Your task to perform on an android device: turn off improve location accuracy Image 0: 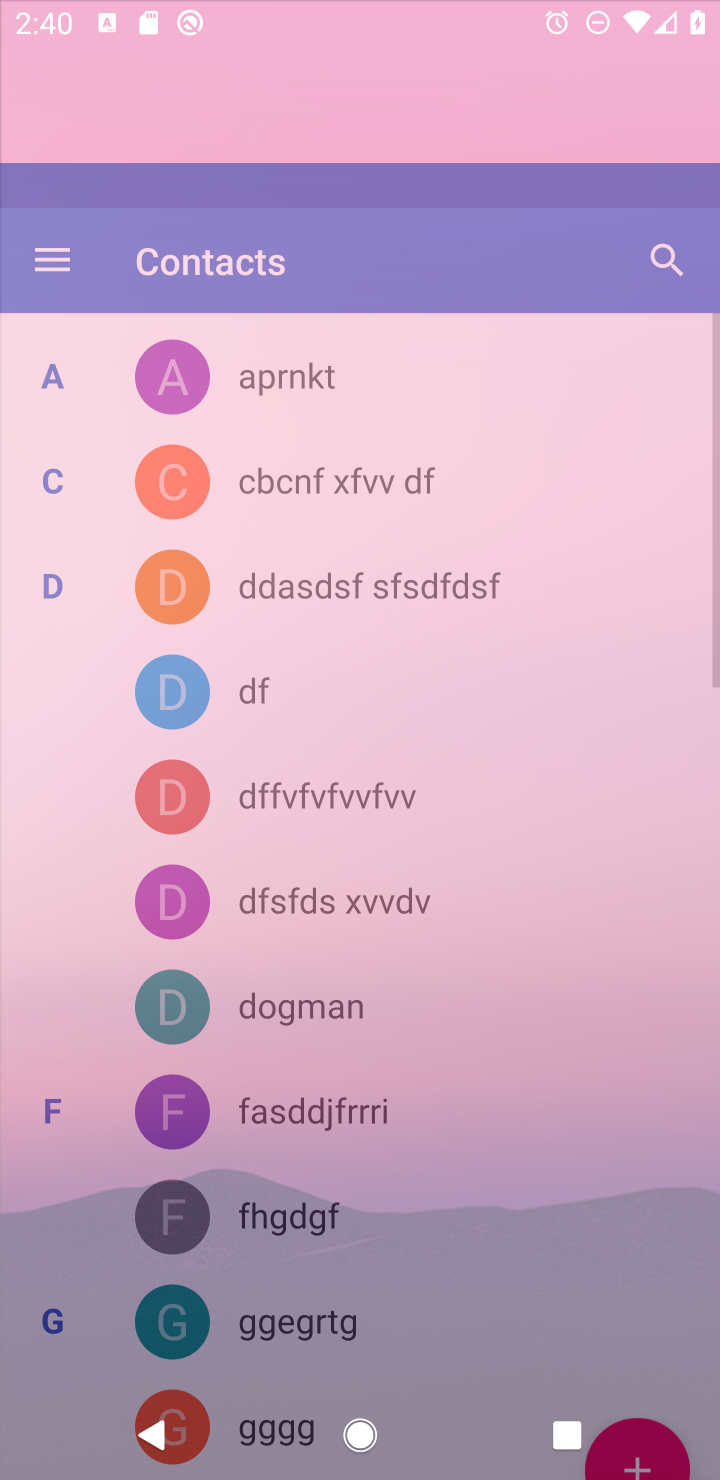
Step 0: press home button
Your task to perform on an android device: turn off improve location accuracy Image 1: 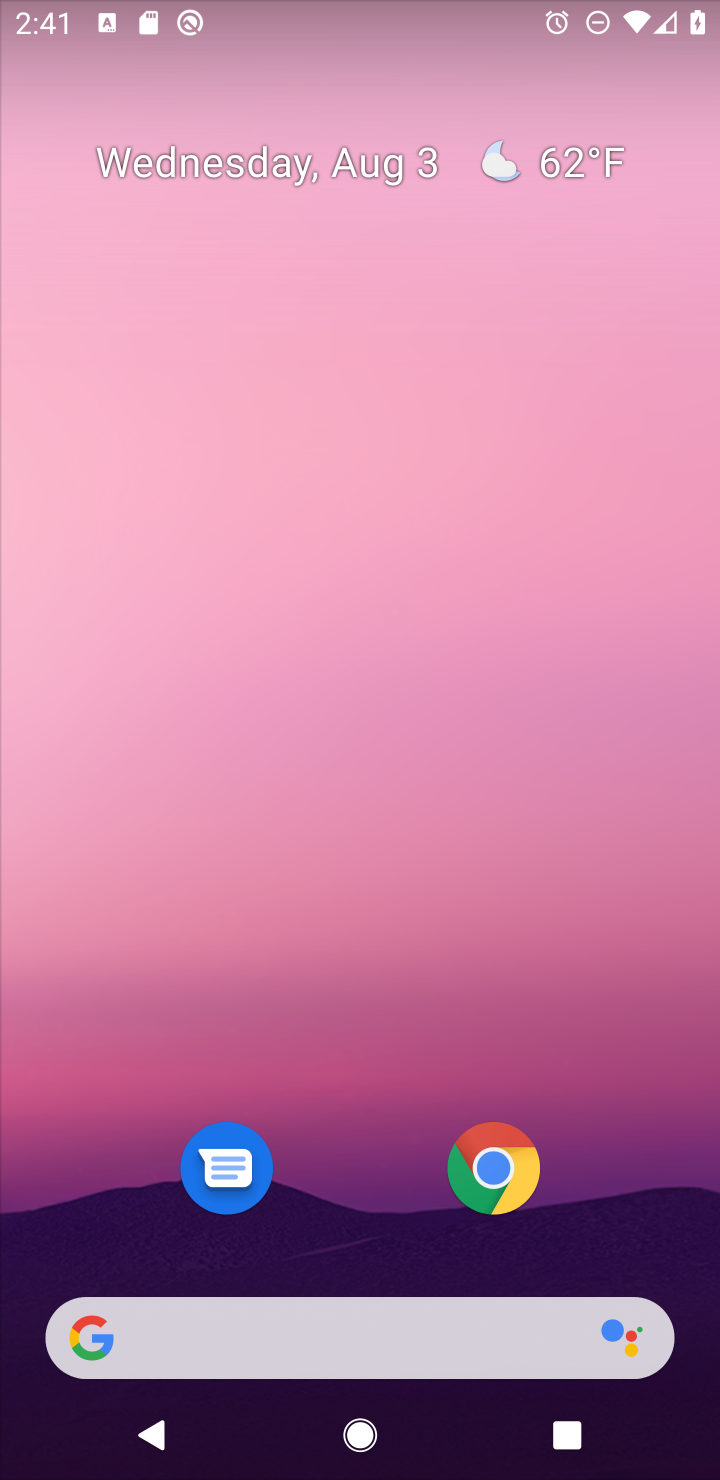
Step 1: drag from (644, 904) to (617, 168)
Your task to perform on an android device: turn off improve location accuracy Image 2: 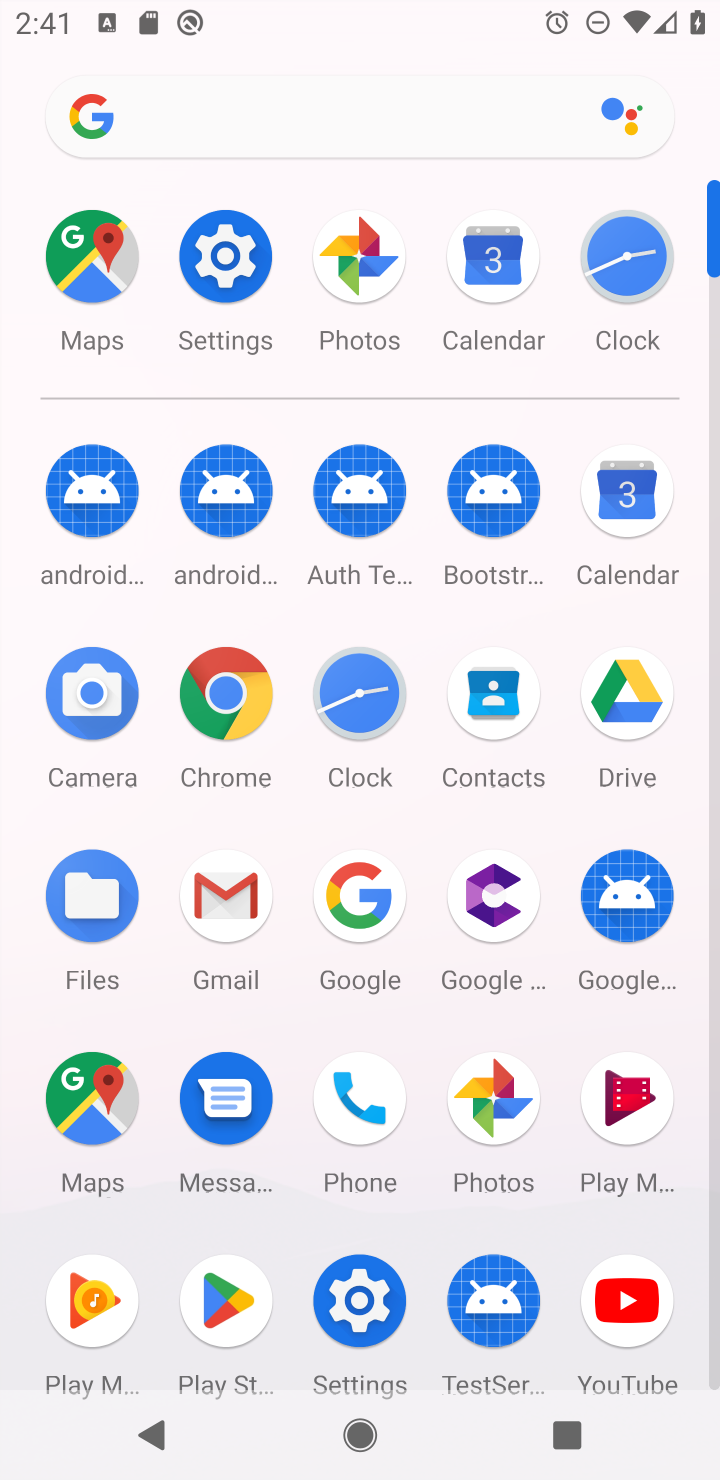
Step 2: click (357, 1298)
Your task to perform on an android device: turn off improve location accuracy Image 3: 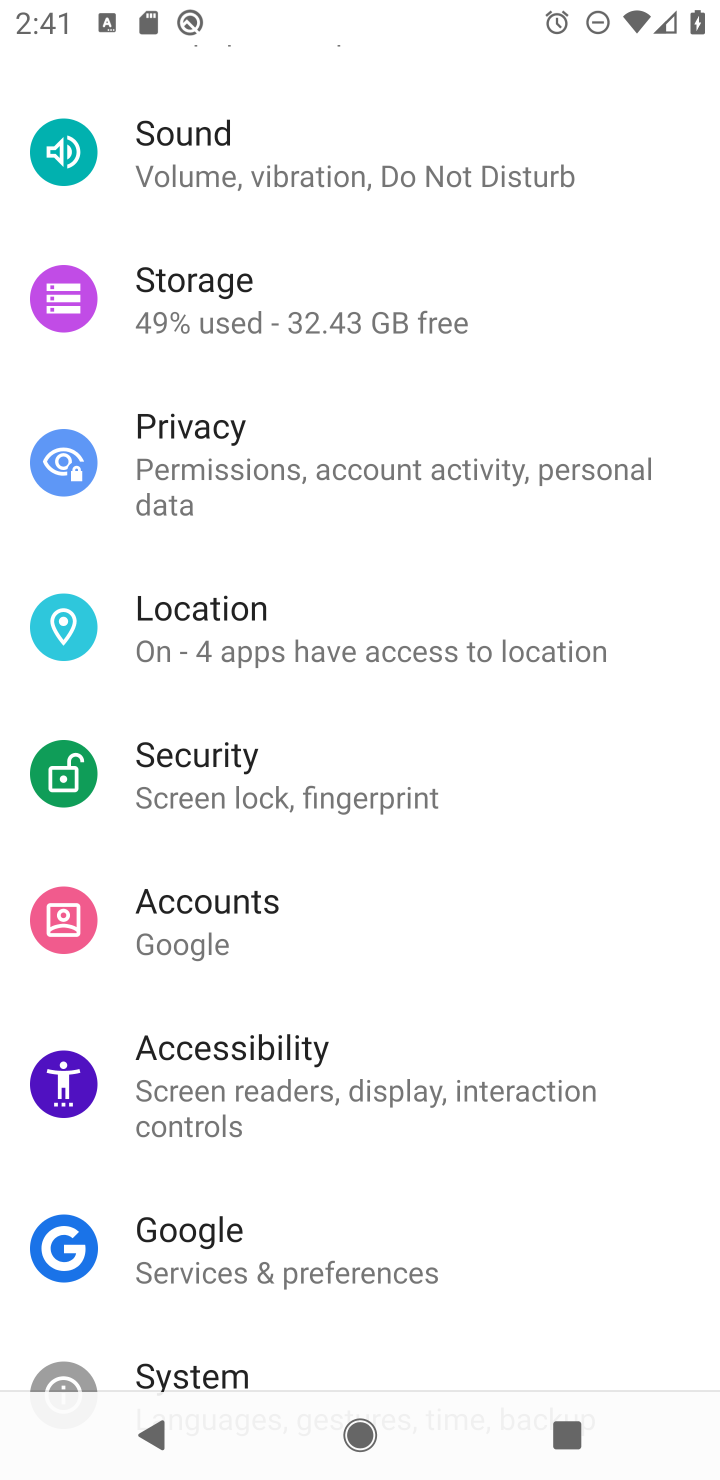
Step 3: click (164, 623)
Your task to perform on an android device: turn off improve location accuracy Image 4: 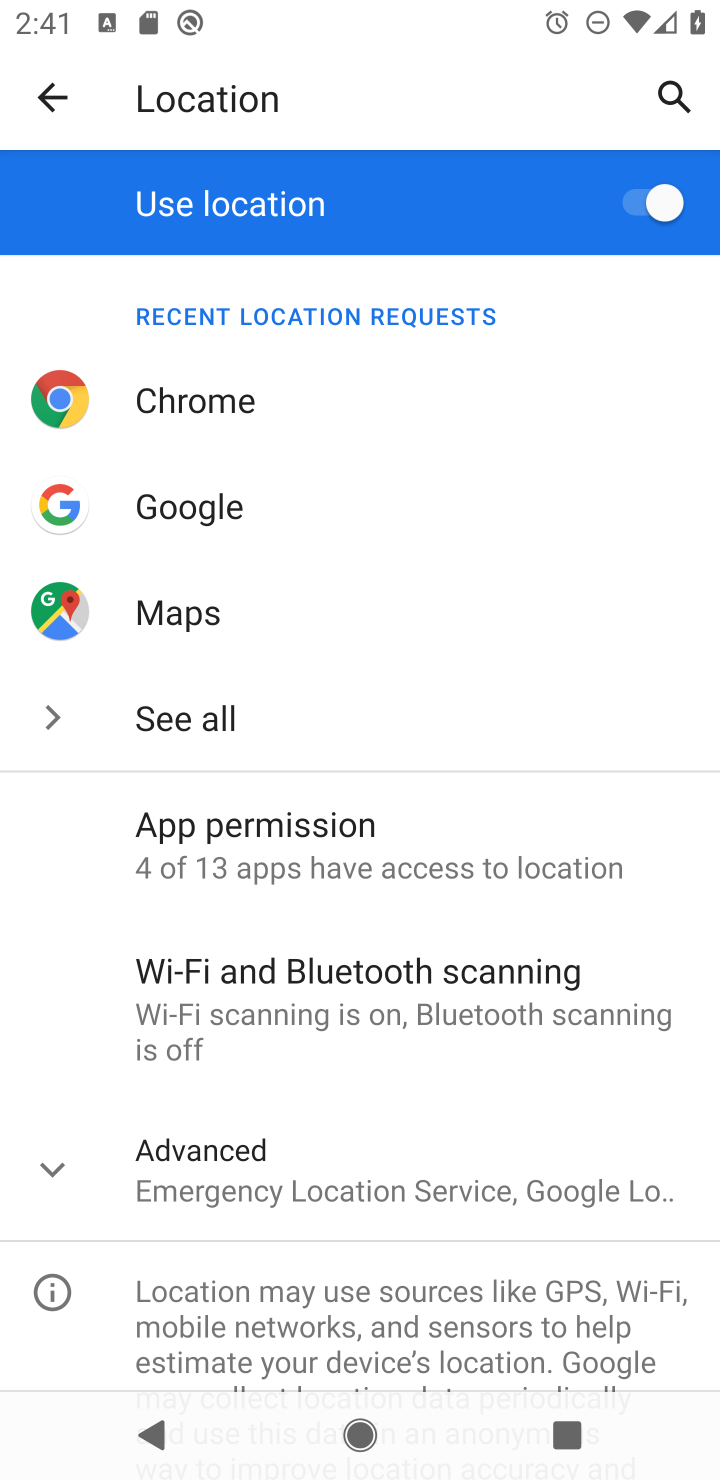
Step 4: click (57, 1171)
Your task to perform on an android device: turn off improve location accuracy Image 5: 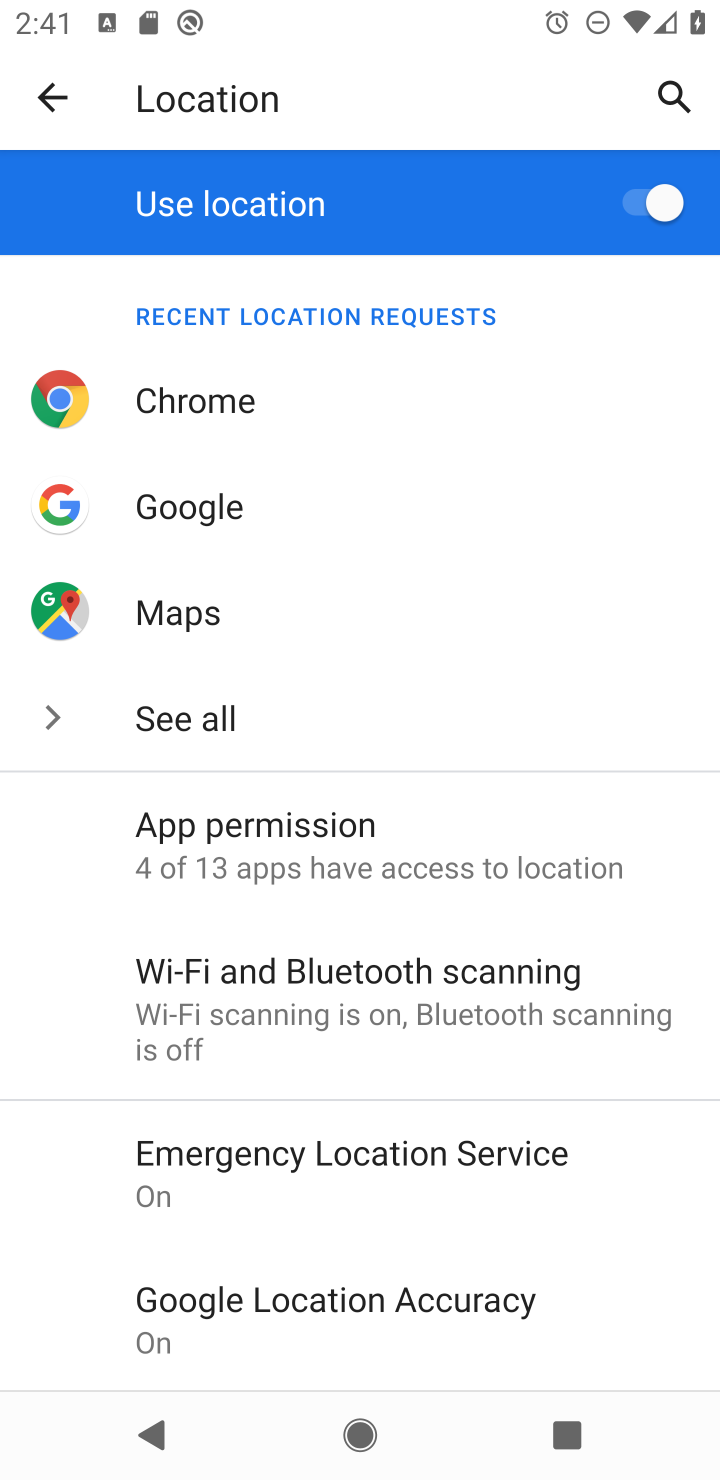
Step 5: click (288, 1308)
Your task to perform on an android device: turn off improve location accuracy Image 6: 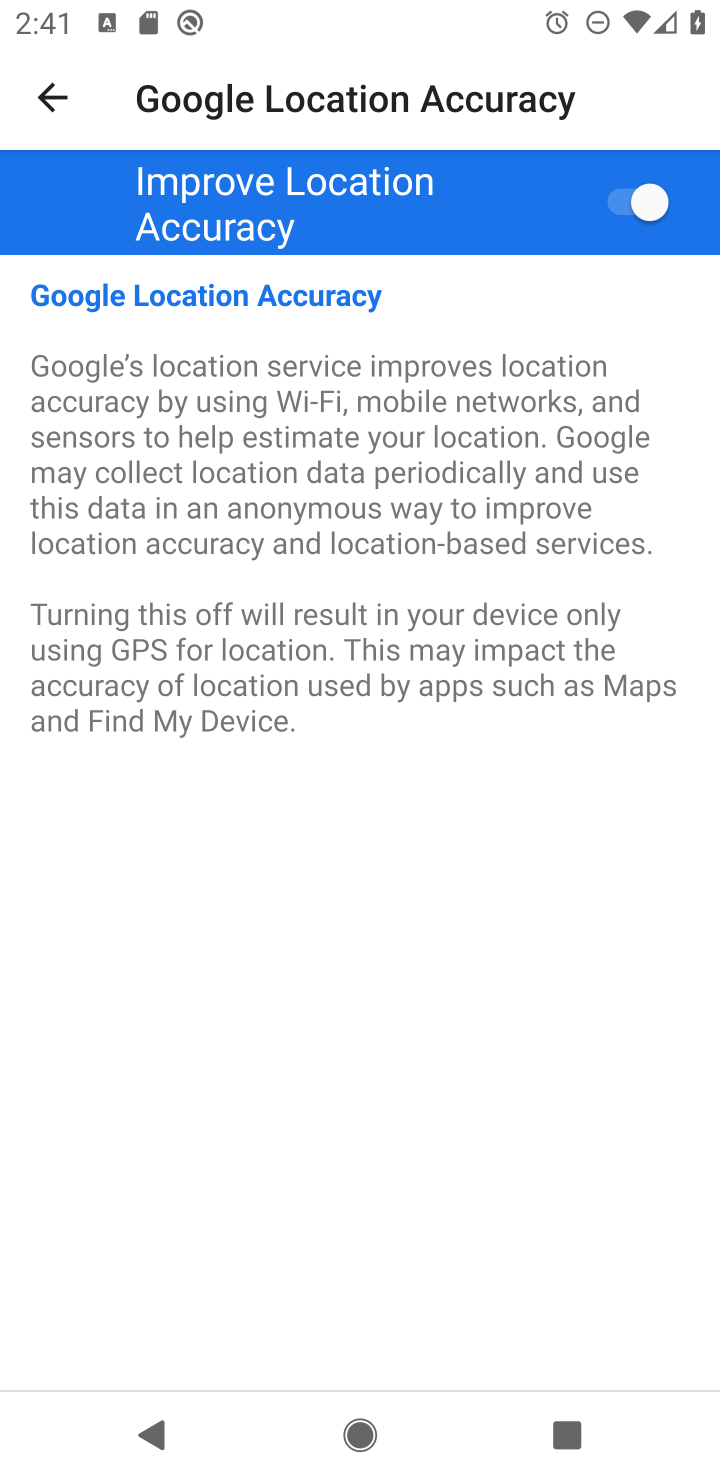
Step 6: click (619, 210)
Your task to perform on an android device: turn off improve location accuracy Image 7: 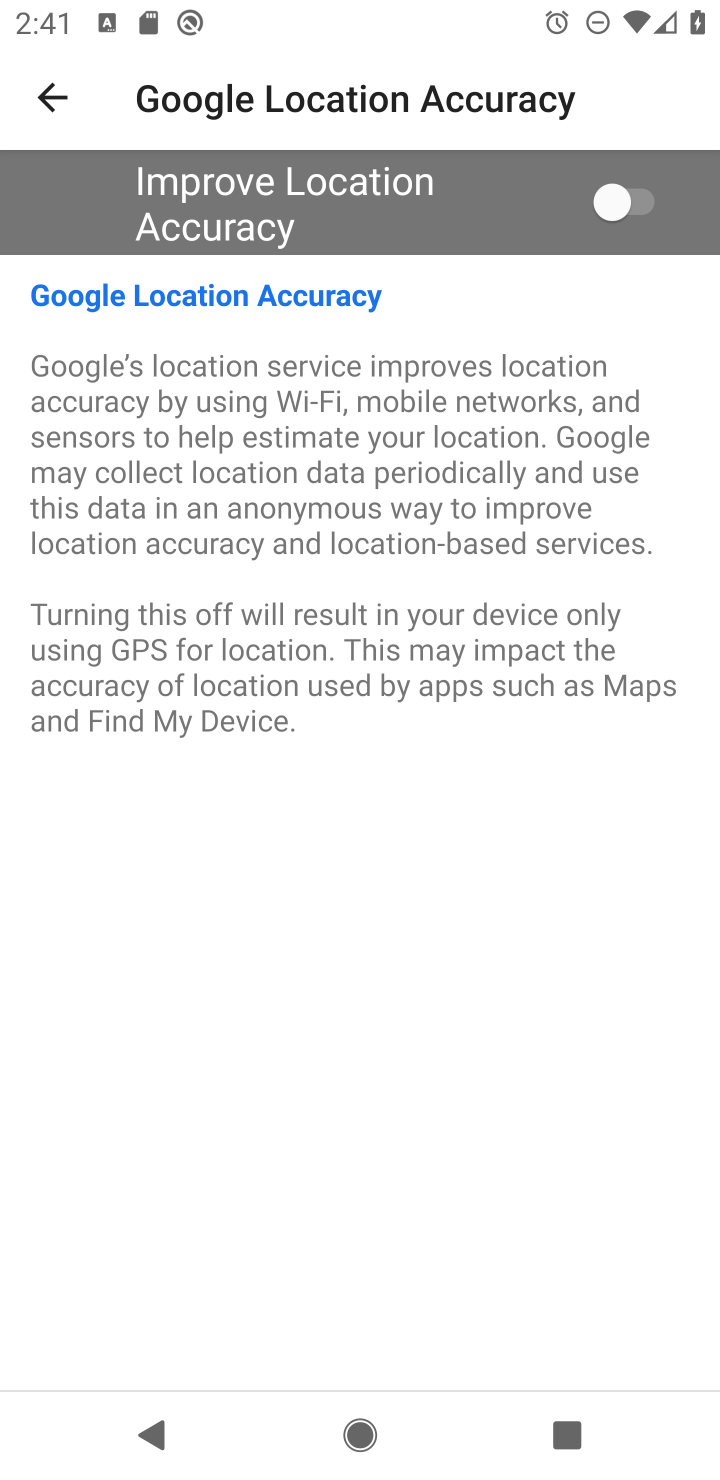
Step 7: task complete